Your task to perform on an android device: check battery use Image 0: 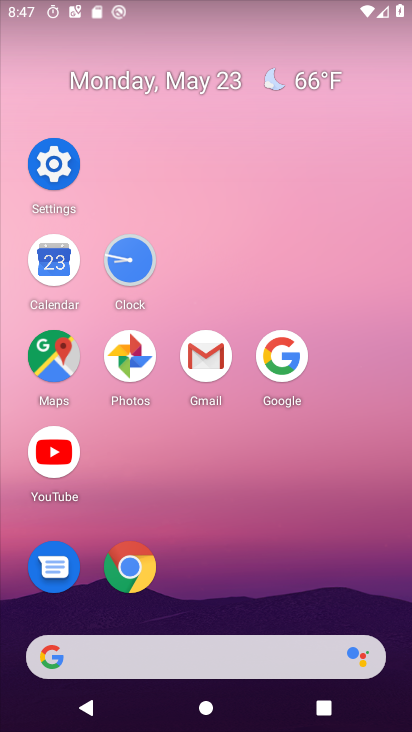
Step 0: click (74, 155)
Your task to perform on an android device: check battery use Image 1: 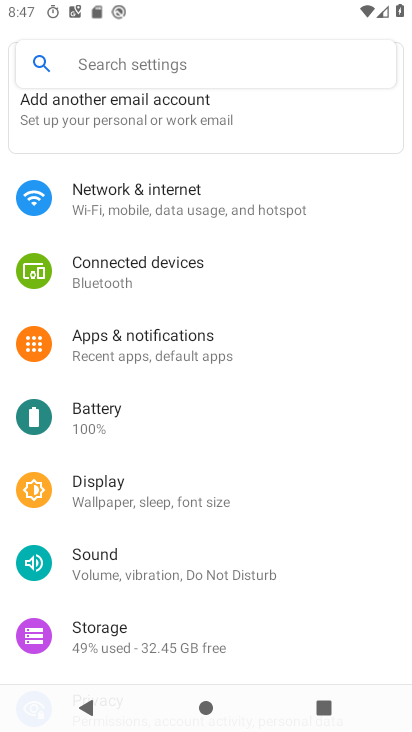
Step 1: click (134, 423)
Your task to perform on an android device: check battery use Image 2: 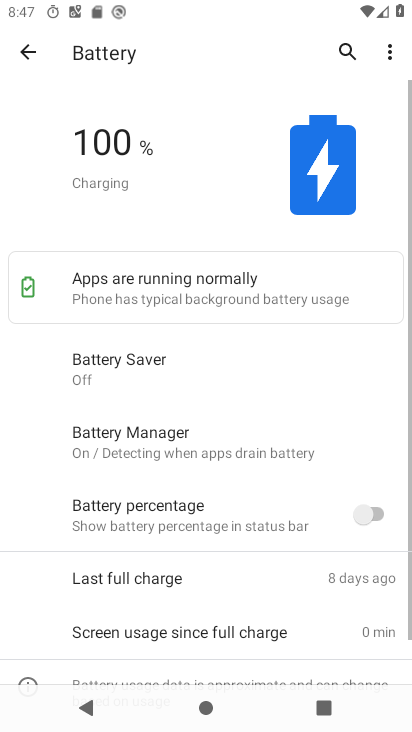
Step 2: click (389, 68)
Your task to perform on an android device: check battery use Image 3: 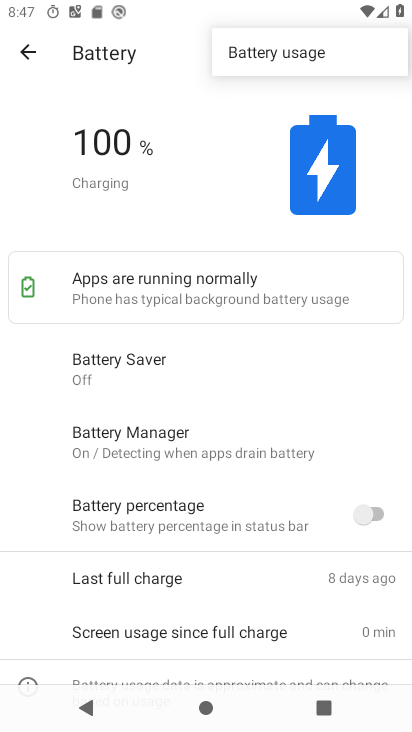
Step 3: click (271, 68)
Your task to perform on an android device: check battery use Image 4: 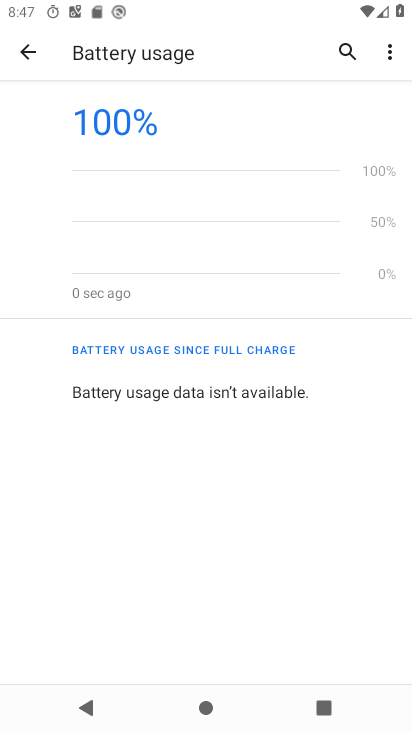
Step 4: task complete